Your task to perform on an android device: Open Maps and search for coffee Image 0: 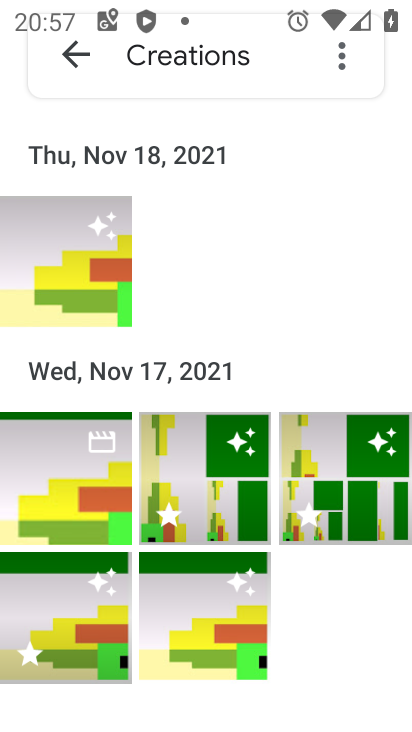
Step 0: press home button
Your task to perform on an android device: Open Maps and search for coffee Image 1: 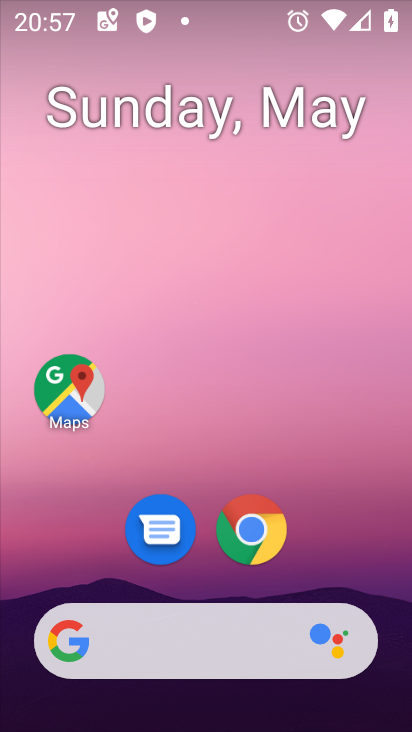
Step 1: click (65, 385)
Your task to perform on an android device: Open Maps and search for coffee Image 2: 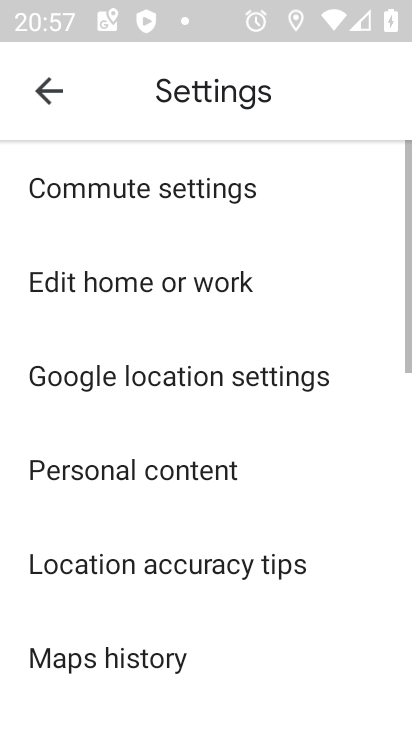
Step 2: click (44, 96)
Your task to perform on an android device: Open Maps and search for coffee Image 3: 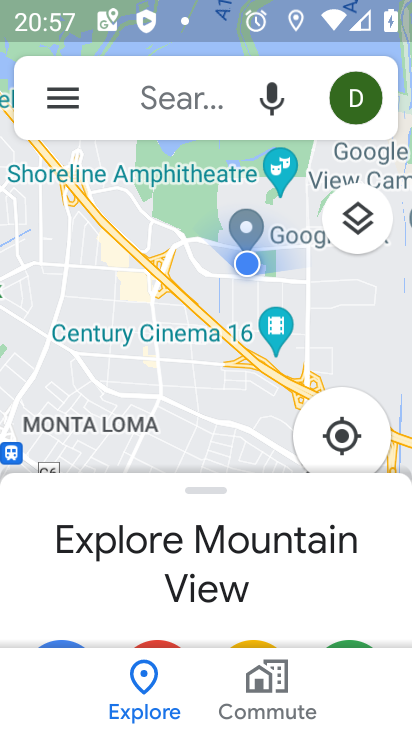
Step 3: click (144, 95)
Your task to perform on an android device: Open Maps and search for coffee Image 4: 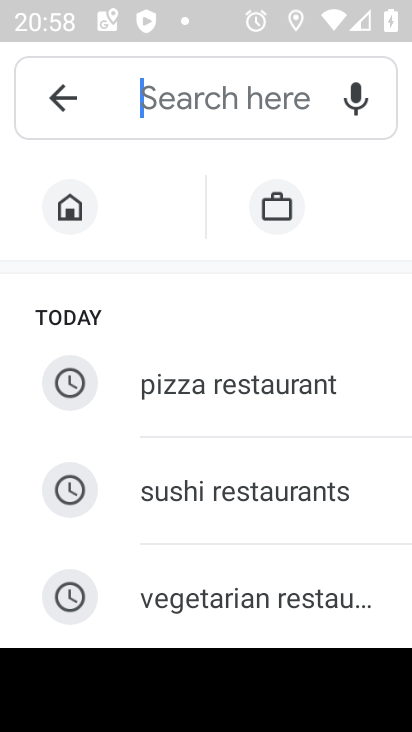
Step 4: type "coffee"
Your task to perform on an android device: Open Maps and search for coffee Image 5: 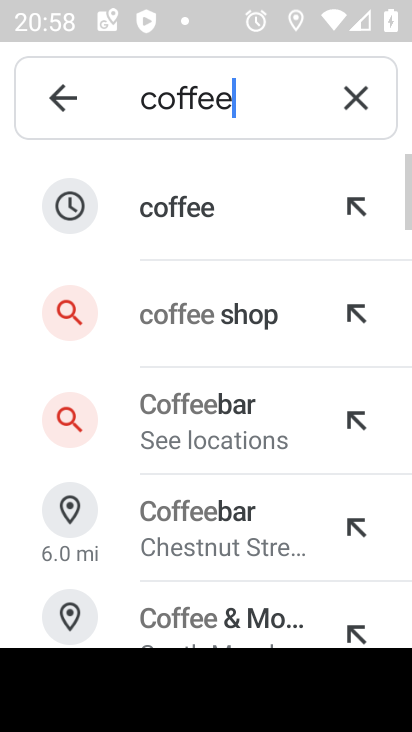
Step 5: click (185, 212)
Your task to perform on an android device: Open Maps and search for coffee Image 6: 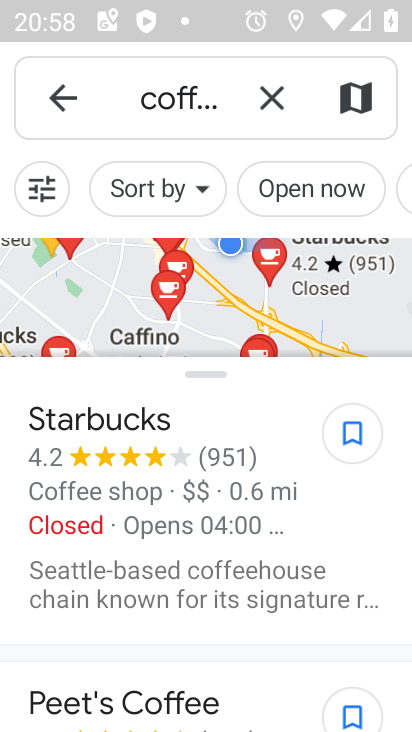
Step 6: task complete